Your task to perform on an android device: open wifi settings Image 0: 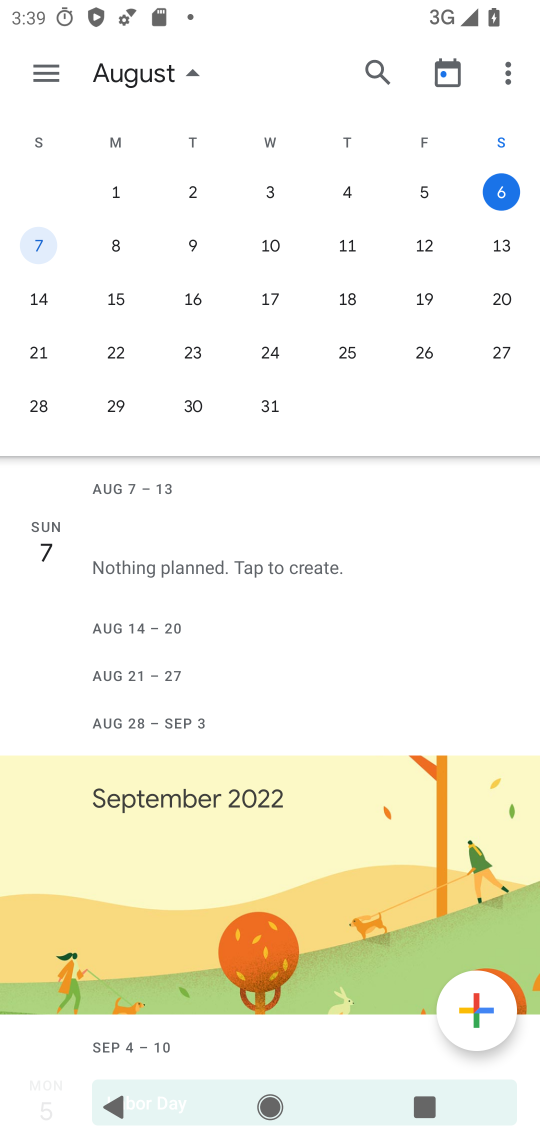
Step 0: press home button
Your task to perform on an android device: open wifi settings Image 1: 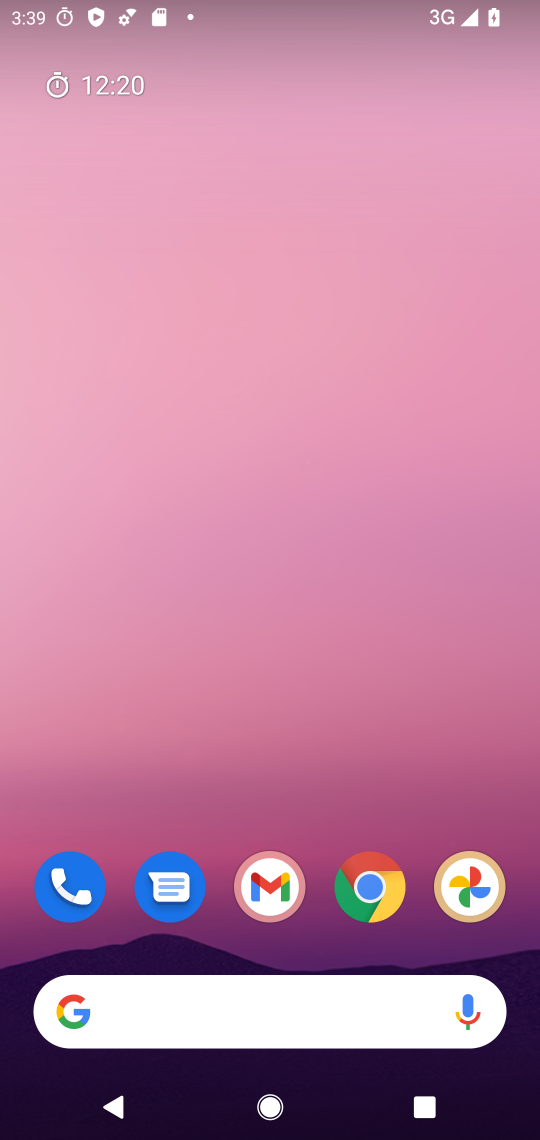
Step 1: drag from (316, 749) to (374, 283)
Your task to perform on an android device: open wifi settings Image 2: 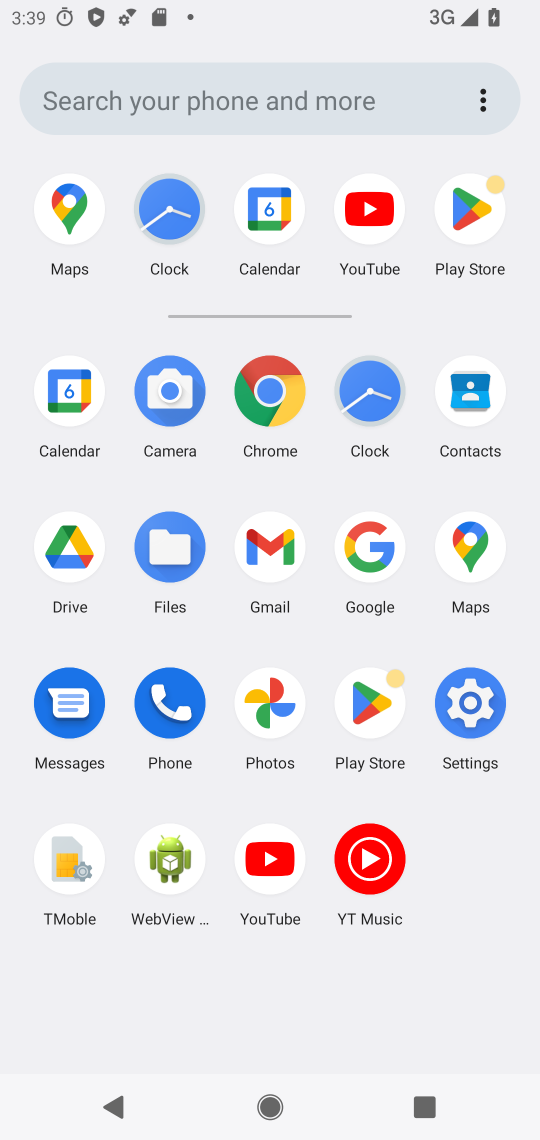
Step 2: click (467, 707)
Your task to perform on an android device: open wifi settings Image 3: 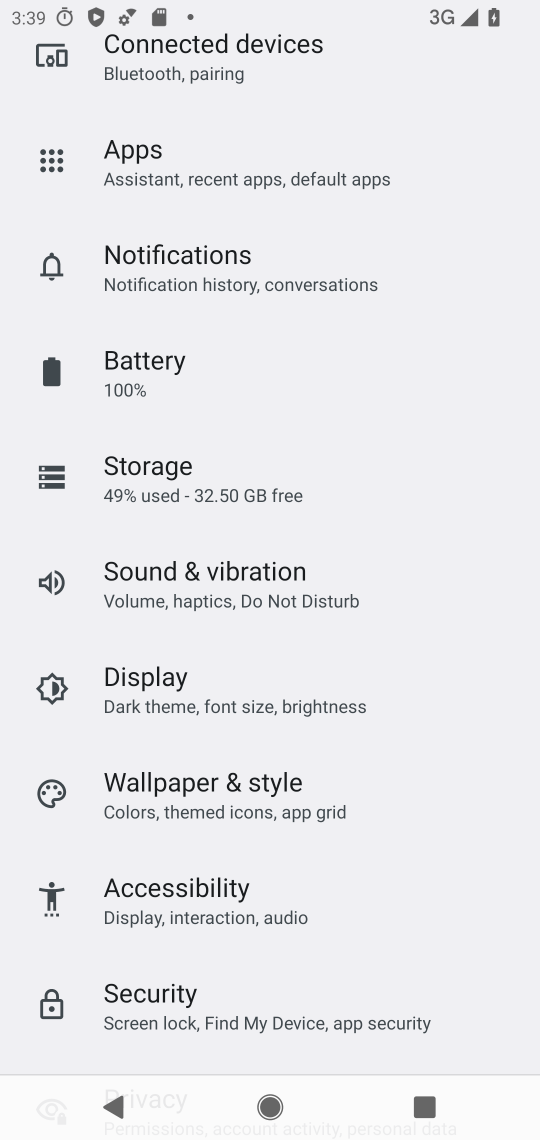
Step 3: drag from (479, 447) to (501, 665)
Your task to perform on an android device: open wifi settings Image 4: 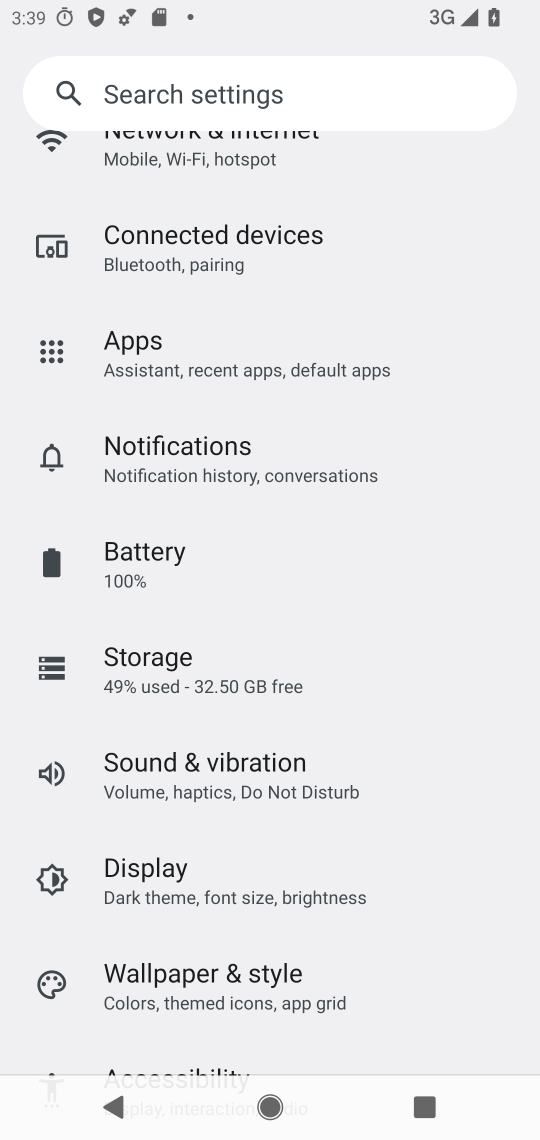
Step 4: drag from (477, 476) to (495, 648)
Your task to perform on an android device: open wifi settings Image 5: 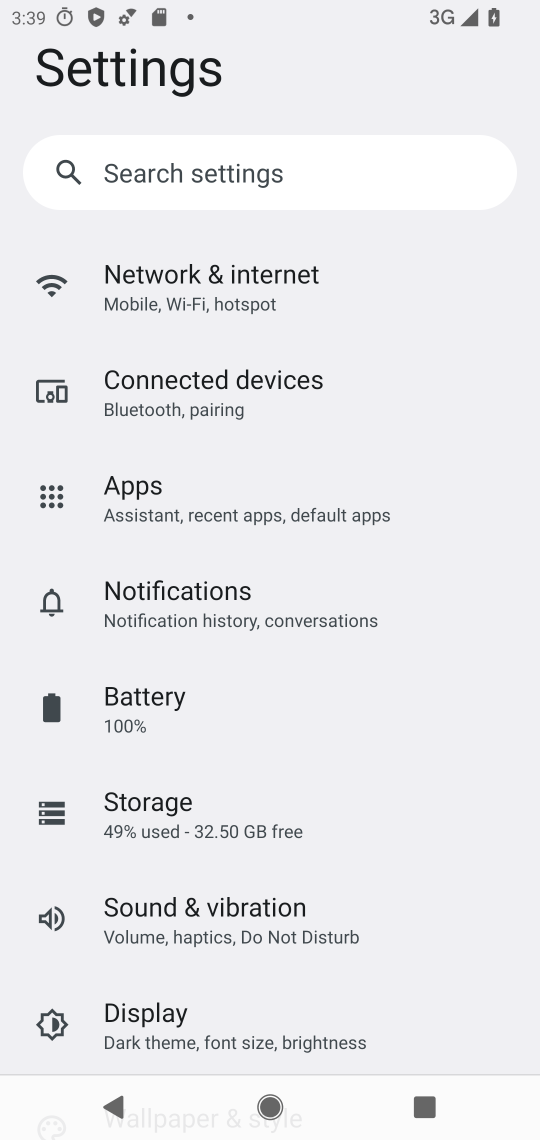
Step 5: drag from (469, 394) to (488, 628)
Your task to perform on an android device: open wifi settings Image 6: 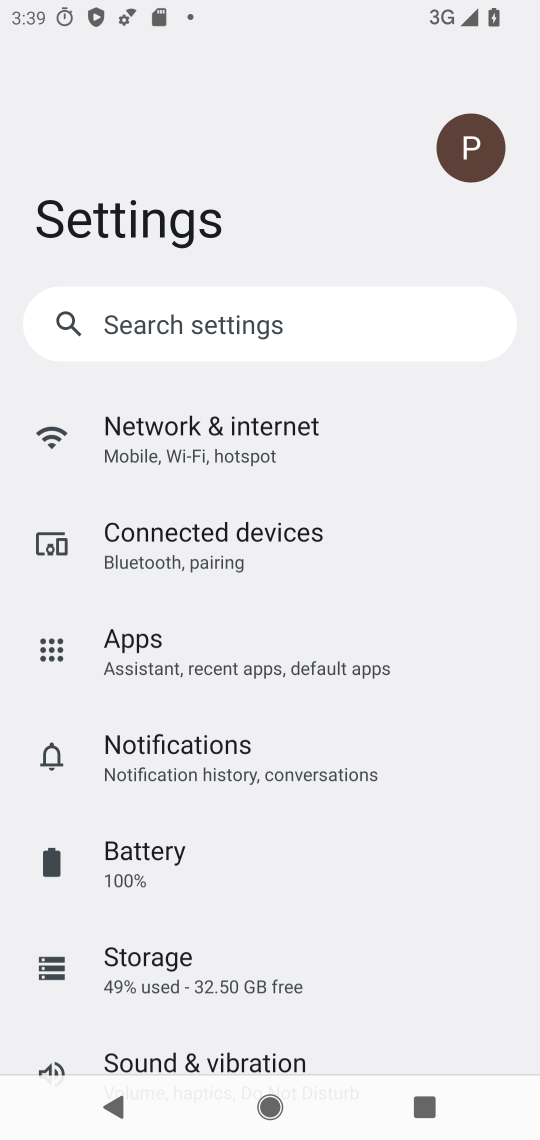
Step 6: click (355, 450)
Your task to perform on an android device: open wifi settings Image 7: 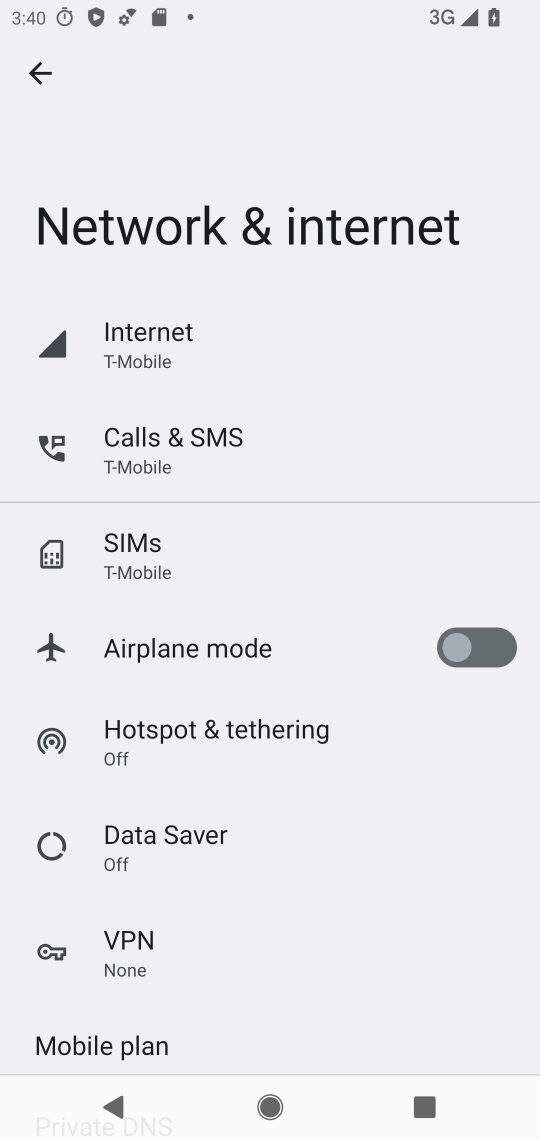
Step 7: drag from (371, 838) to (379, 682)
Your task to perform on an android device: open wifi settings Image 8: 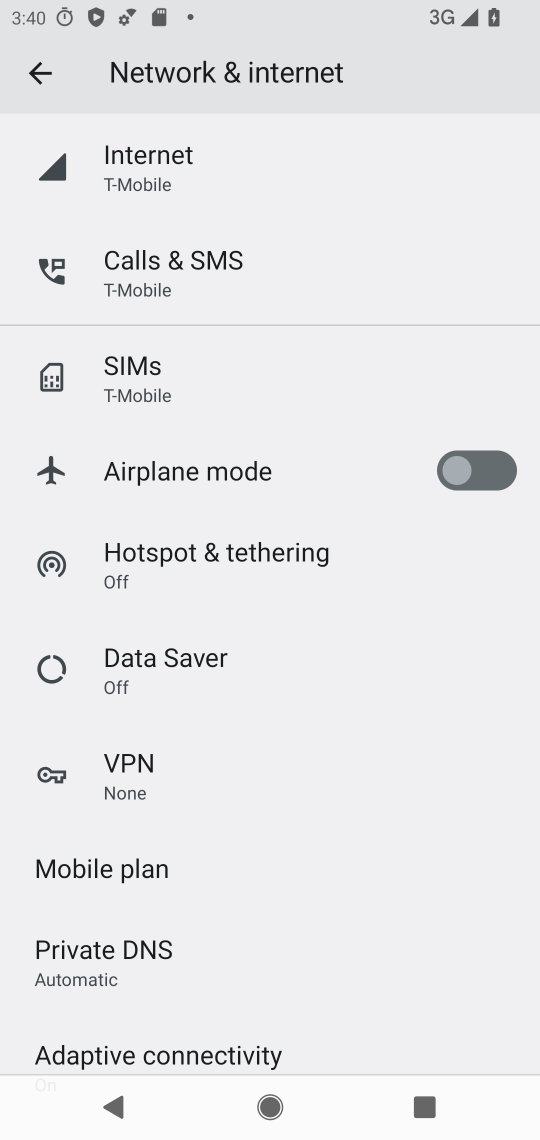
Step 8: click (180, 208)
Your task to perform on an android device: open wifi settings Image 9: 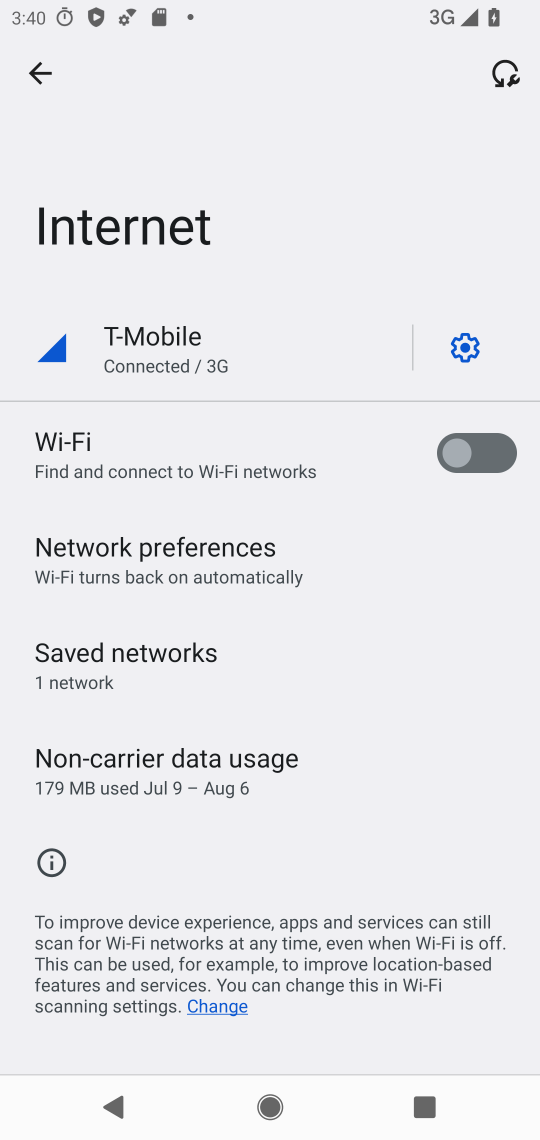
Step 9: task complete